Your task to perform on an android device: Open maps Image 0: 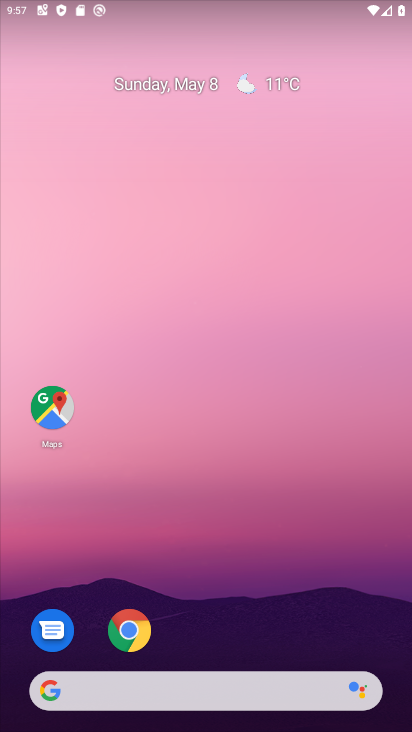
Step 0: drag from (364, 609) to (264, 59)
Your task to perform on an android device: Open maps Image 1: 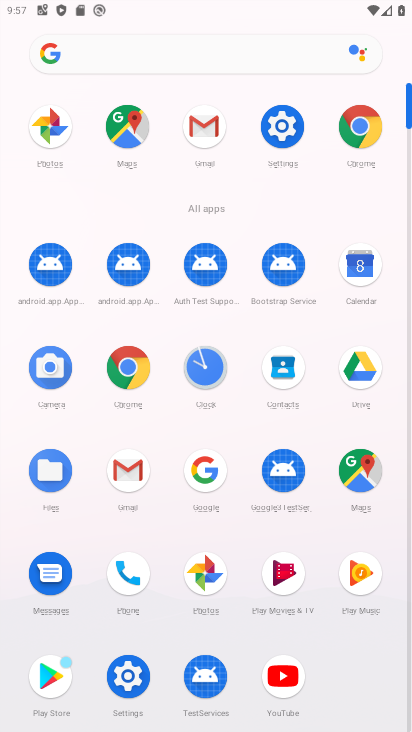
Step 1: click (132, 125)
Your task to perform on an android device: Open maps Image 2: 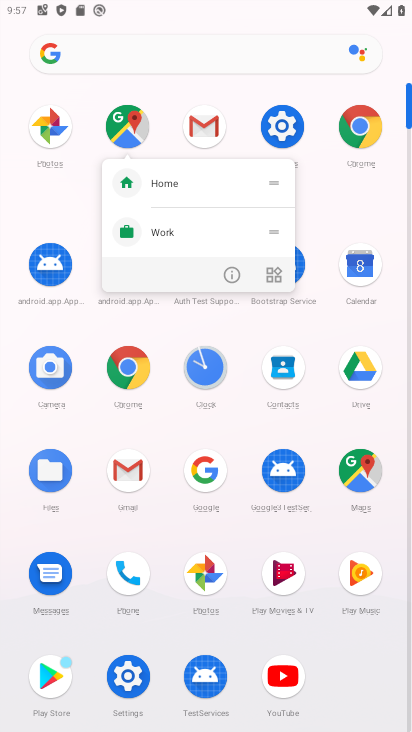
Step 2: click (125, 133)
Your task to perform on an android device: Open maps Image 3: 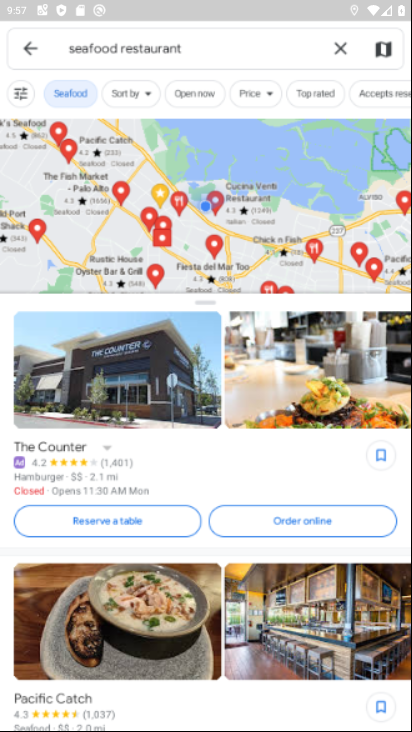
Step 3: click (336, 49)
Your task to perform on an android device: Open maps Image 4: 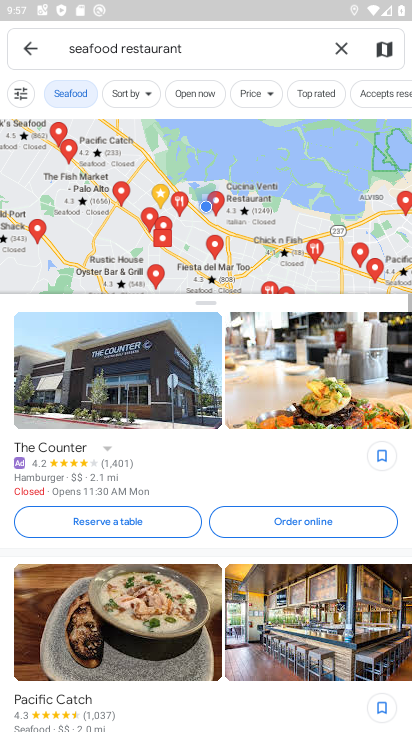
Step 4: click (339, 44)
Your task to perform on an android device: Open maps Image 5: 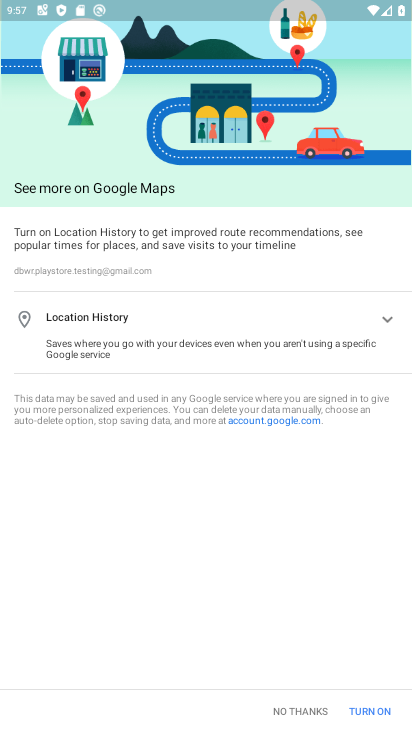
Step 5: click (295, 708)
Your task to perform on an android device: Open maps Image 6: 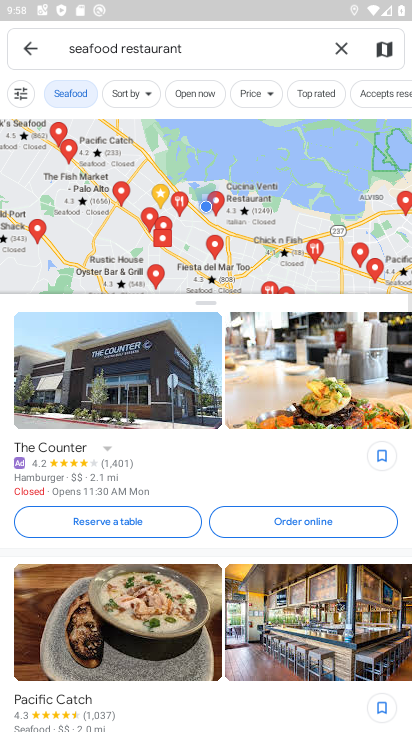
Step 6: click (336, 45)
Your task to perform on an android device: Open maps Image 7: 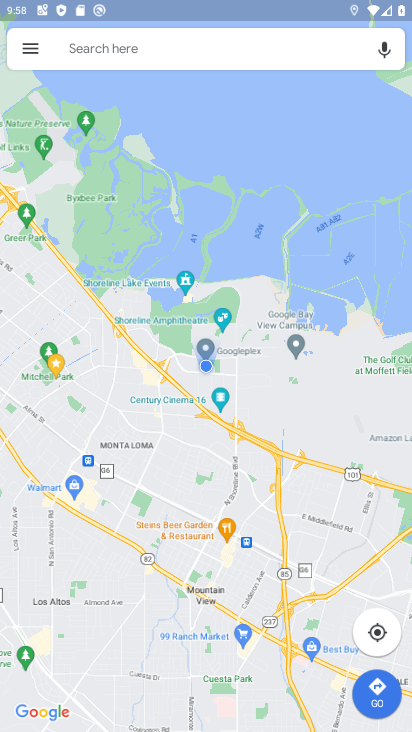
Step 7: task complete